Your task to perform on an android device: Is it going to rain tomorrow? Image 0: 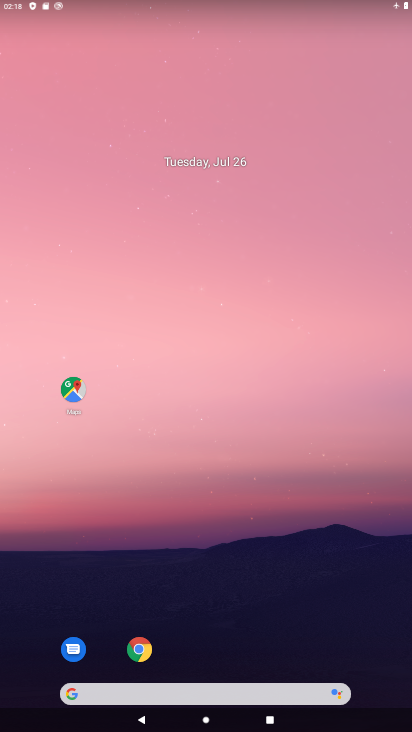
Step 0: drag from (213, 695) to (331, 106)
Your task to perform on an android device: Is it going to rain tomorrow? Image 1: 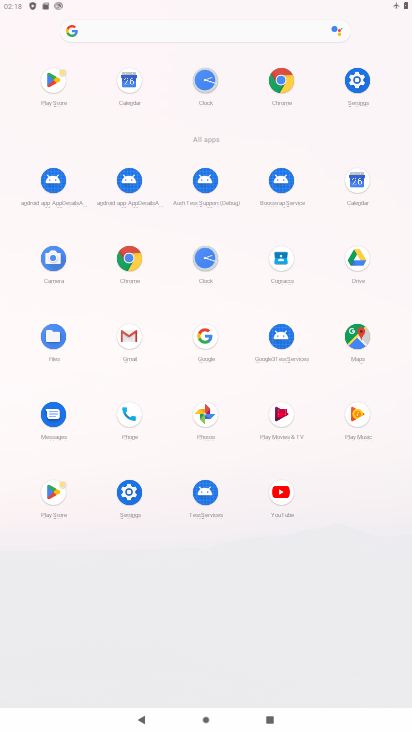
Step 1: click (202, 336)
Your task to perform on an android device: Is it going to rain tomorrow? Image 2: 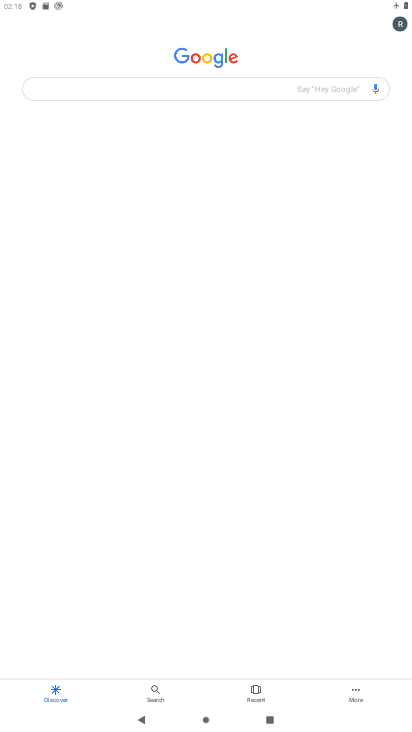
Step 2: click (238, 87)
Your task to perform on an android device: Is it going to rain tomorrow? Image 3: 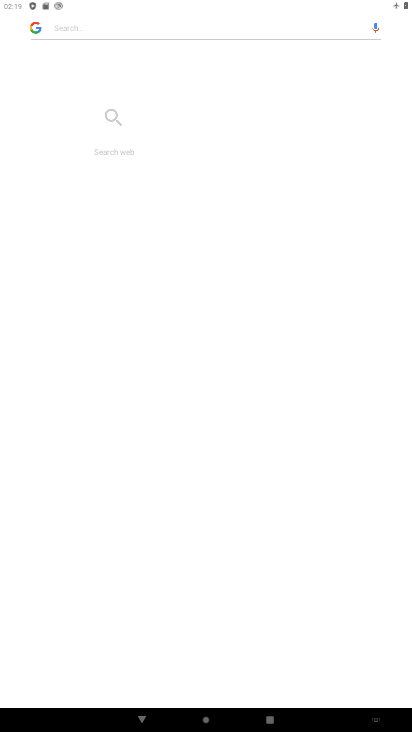
Step 3: type "Is it going to rain tomorrow?"
Your task to perform on an android device: Is it going to rain tomorrow? Image 4: 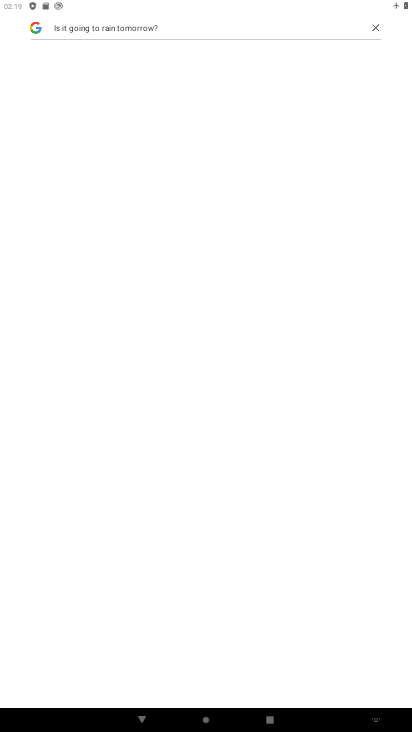
Step 4: task complete